Your task to perform on an android device: change notification settings in the gmail app Image 0: 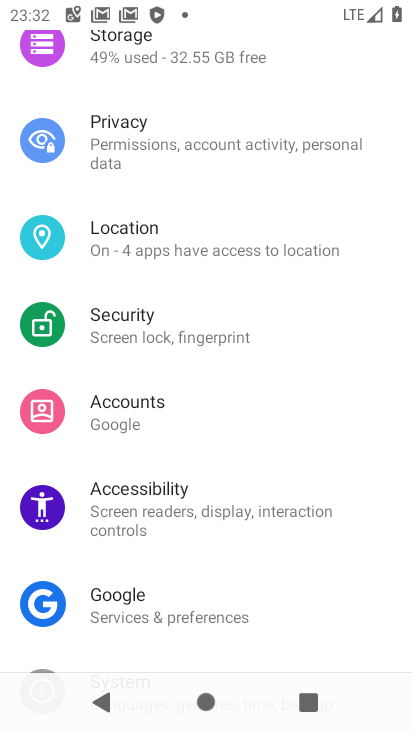
Step 0: press home button
Your task to perform on an android device: change notification settings in the gmail app Image 1: 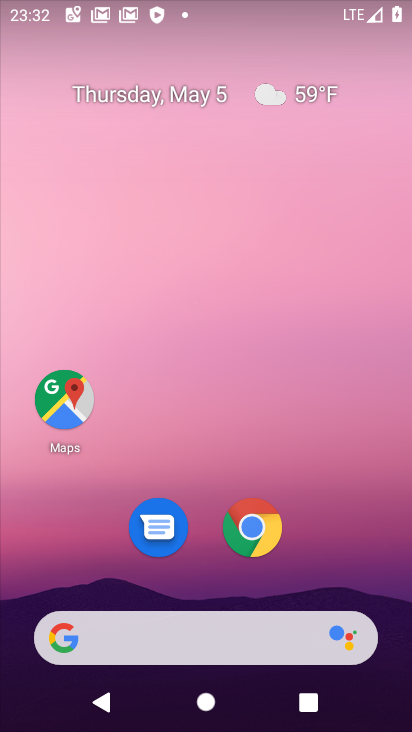
Step 1: drag from (159, 559) to (133, 51)
Your task to perform on an android device: change notification settings in the gmail app Image 2: 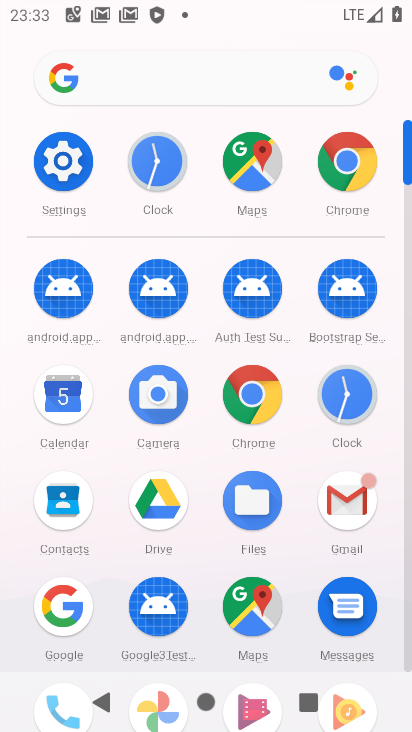
Step 2: click (334, 510)
Your task to perform on an android device: change notification settings in the gmail app Image 3: 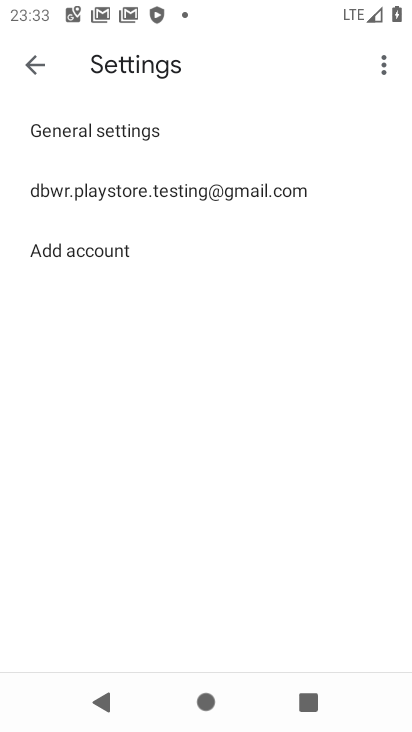
Step 3: click (147, 128)
Your task to perform on an android device: change notification settings in the gmail app Image 4: 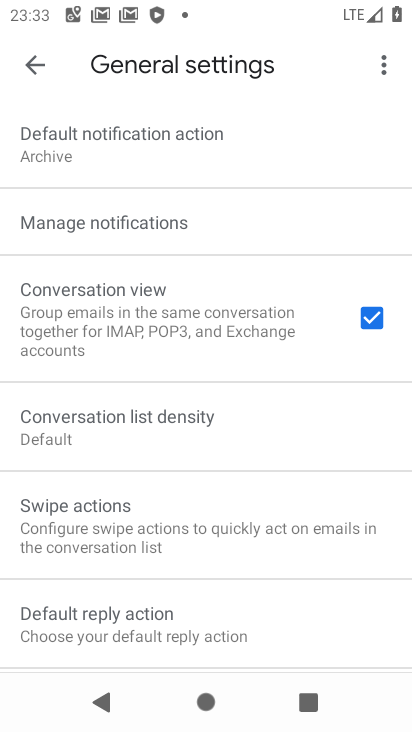
Step 4: click (169, 236)
Your task to perform on an android device: change notification settings in the gmail app Image 5: 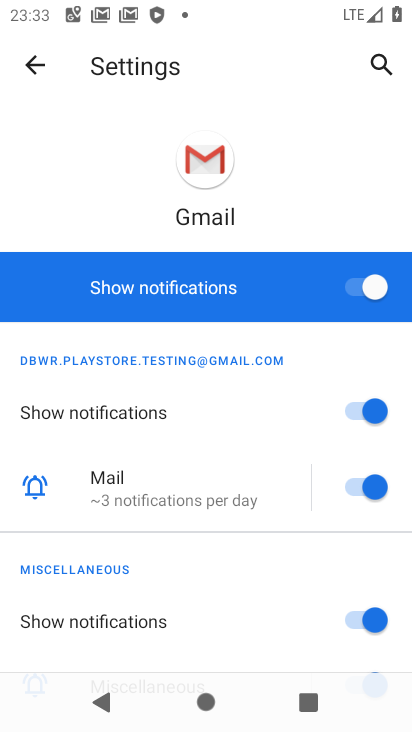
Step 5: click (338, 292)
Your task to perform on an android device: change notification settings in the gmail app Image 6: 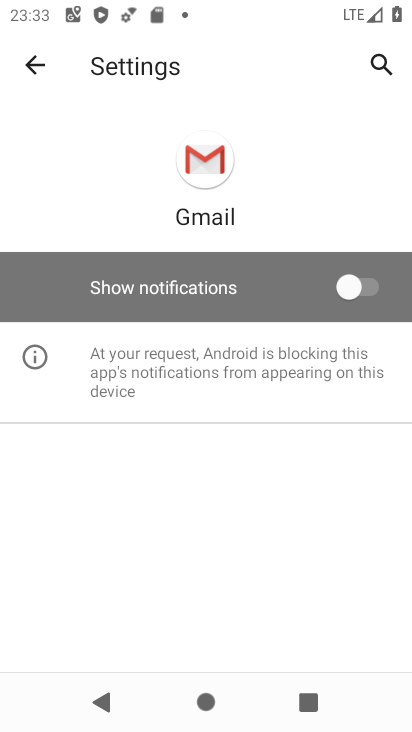
Step 6: task complete